Your task to perform on an android device: Open Maps and search for coffee Image 0: 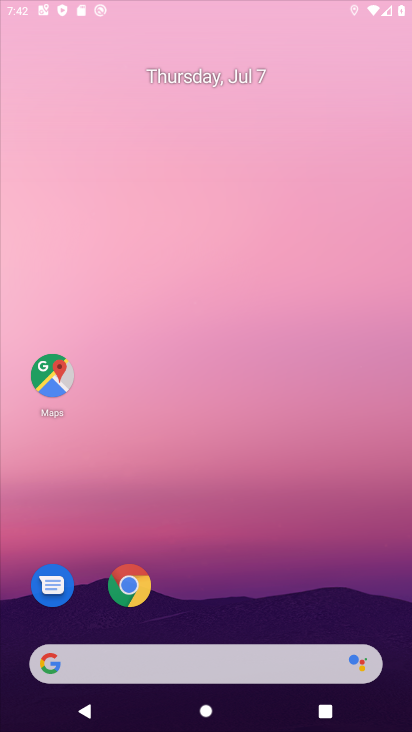
Step 0: click (61, 499)
Your task to perform on an android device: Open Maps and search for coffee Image 1: 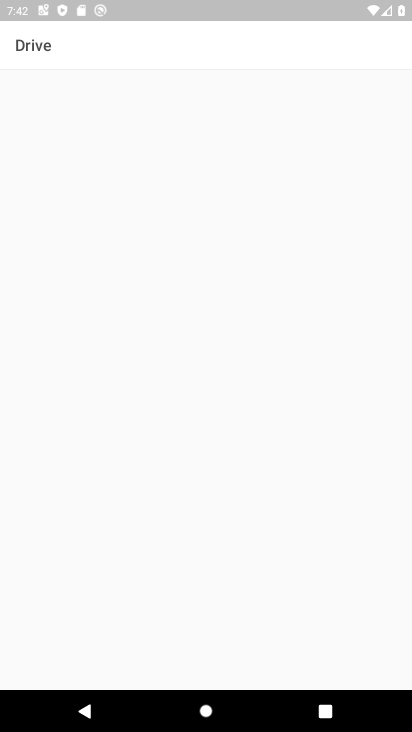
Step 1: press home button
Your task to perform on an android device: Open Maps and search for coffee Image 2: 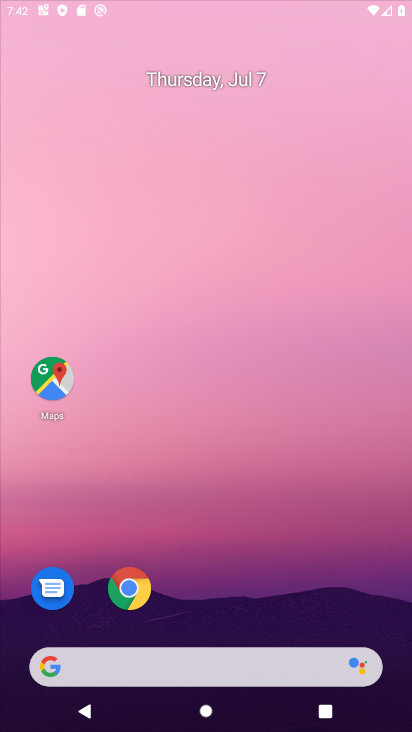
Step 2: press home button
Your task to perform on an android device: Open Maps and search for coffee Image 3: 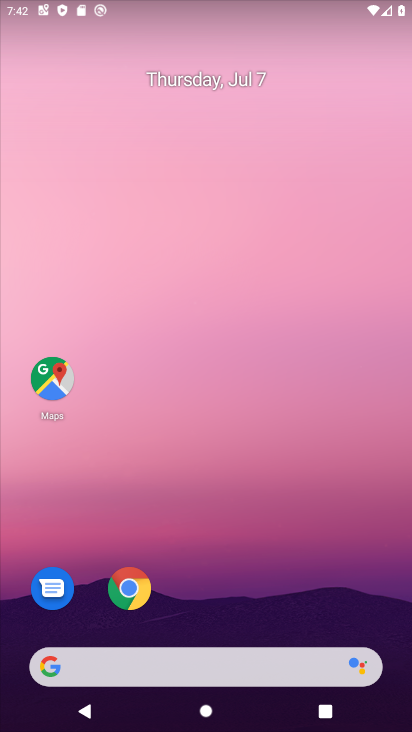
Step 3: drag from (205, 631) to (278, 305)
Your task to perform on an android device: Open Maps and search for coffee Image 4: 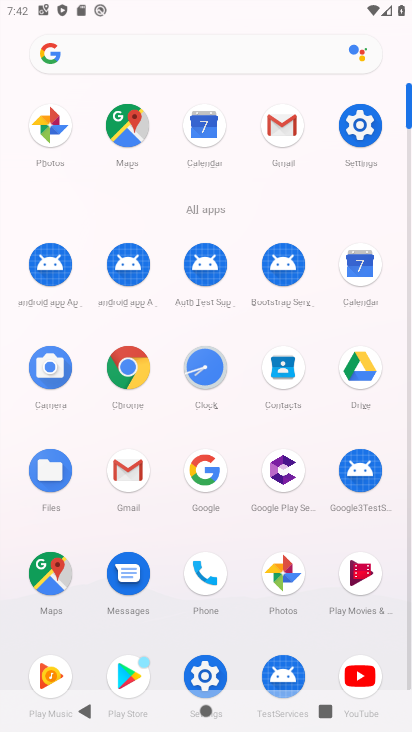
Step 4: click (52, 568)
Your task to perform on an android device: Open Maps and search for coffee Image 5: 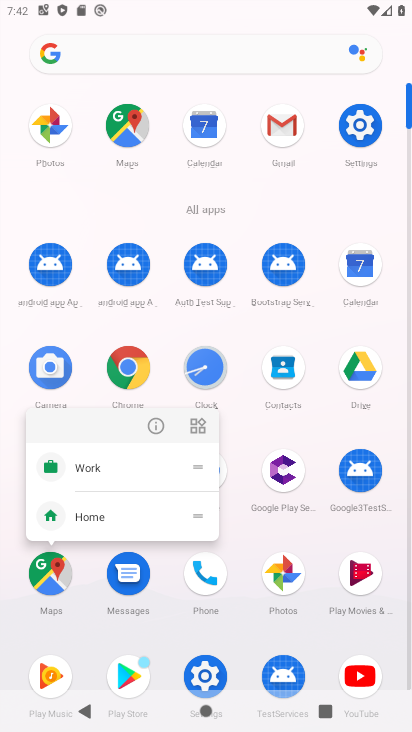
Step 5: click (155, 419)
Your task to perform on an android device: Open Maps and search for coffee Image 6: 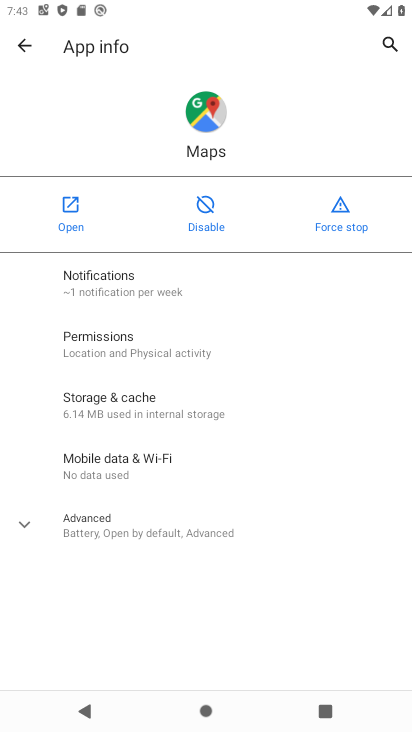
Step 6: click (66, 224)
Your task to perform on an android device: Open Maps and search for coffee Image 7: 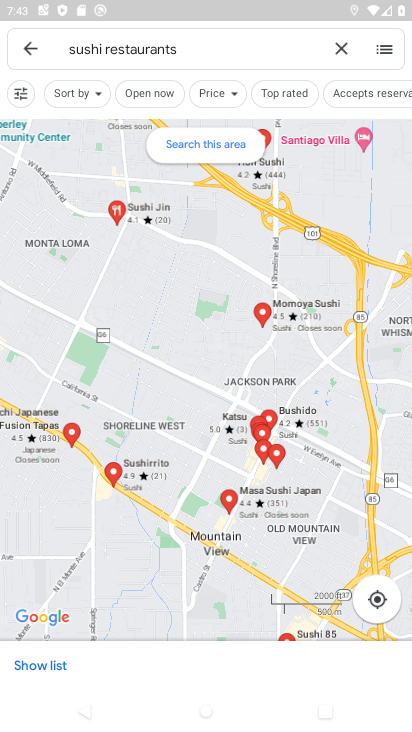
Step 7: click (344, 51)
Your task to perform on an android device: Open Maps and search for coffee Image 8: 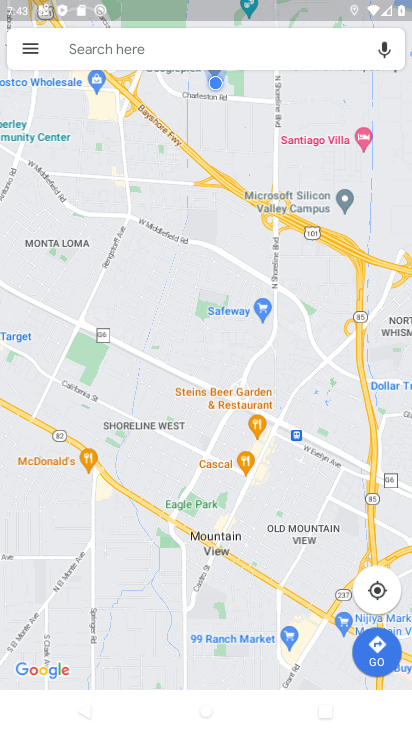
Step 8: click (160, 36)
Your task to perform on an android device: Open Maps and search for coffee Image 9: 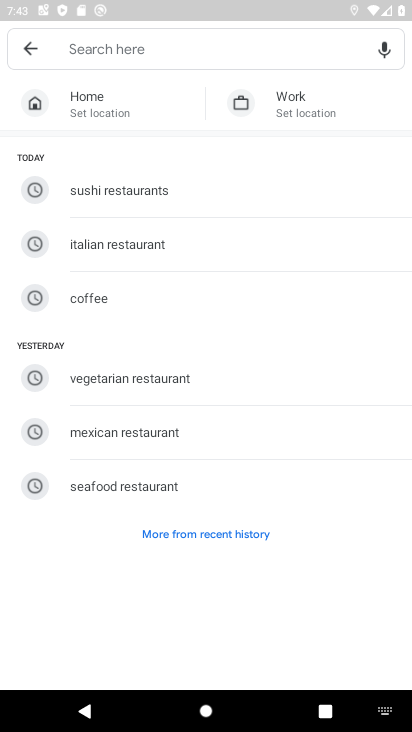
Step 9: click (156, 298)
Your task to perform on an android device: Open Maps and search for coffee Image 10: 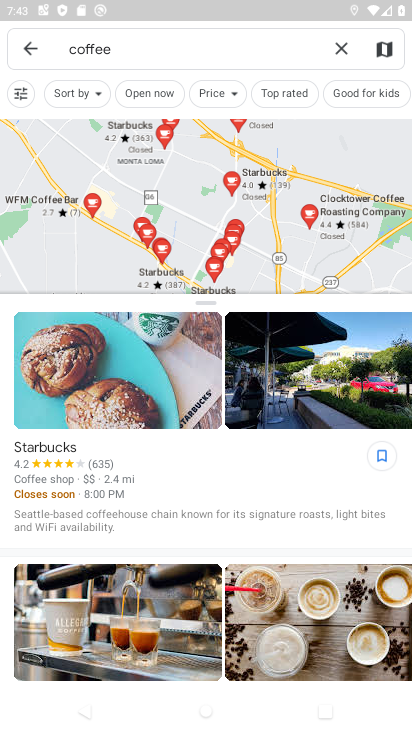
Step 10: task complete